Your task to perform on an android device: Go to wifi settings Image 0: 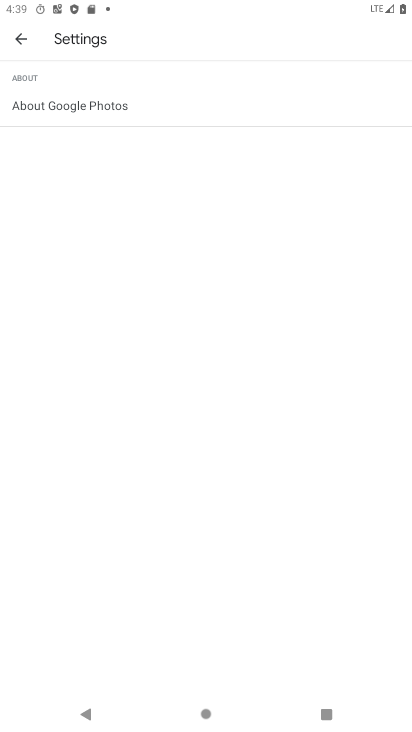
Step 0: press home button
Your task to perform on an android device: Go to wifi settings Image 1: 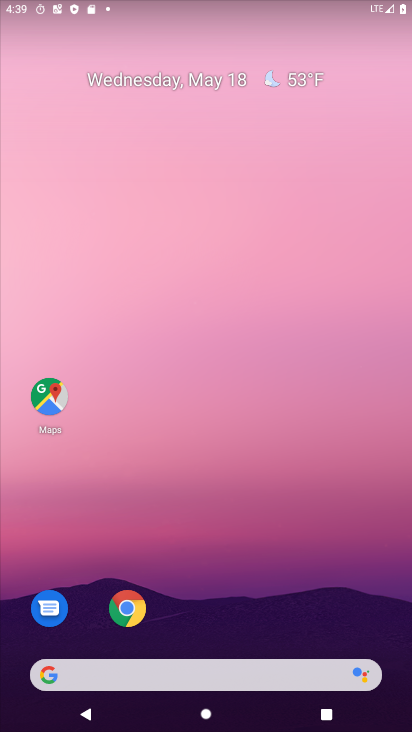
Step 1: drag from (235, 690) to (232, 100)
Your task to perform on an android device: Go to wifi settings Image 2: 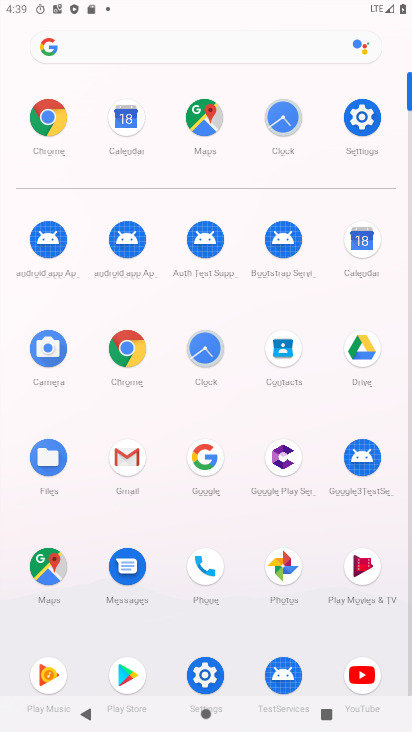
Step 2: click (366, 129)
Your task to perform on an android device: Go to wifi settings Image 3: 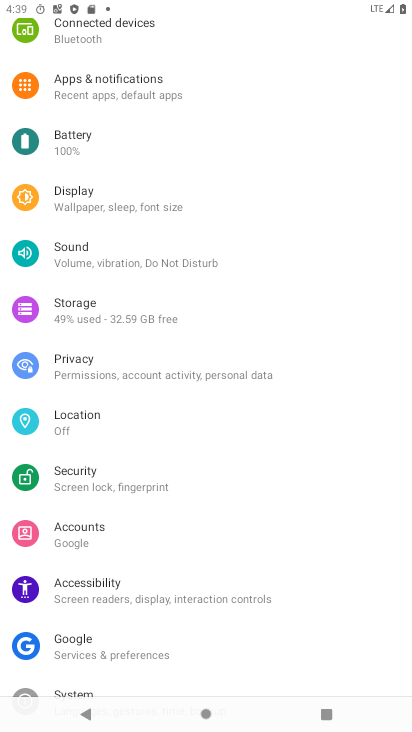
Step 3: drag from (144, 140) to (190, 590)
Your task to perform on an android device: Go to wifi settings Image 4: 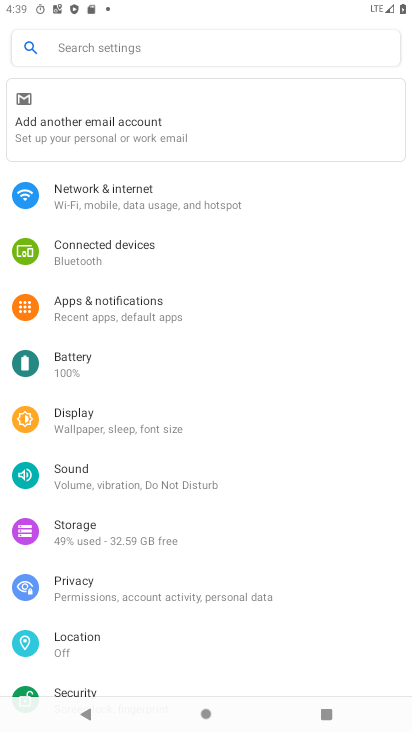
Step 4: click (160, 208)
Your task to perform on an android device: Go to wifi settings Image 5: 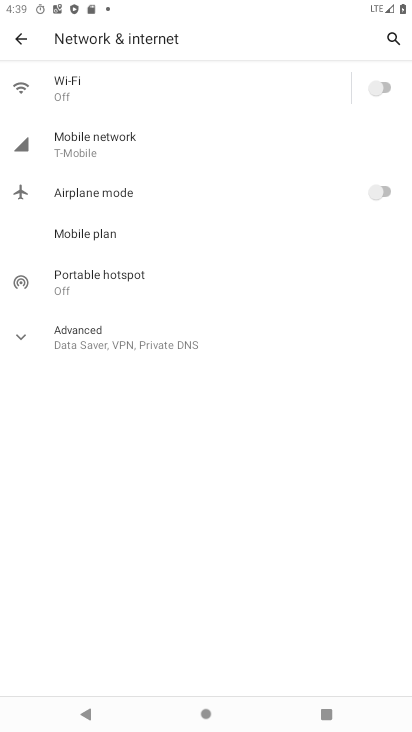
Step 5: click (132, 82)
Your task to perform on an android device: Go to wifi settings Image 6: 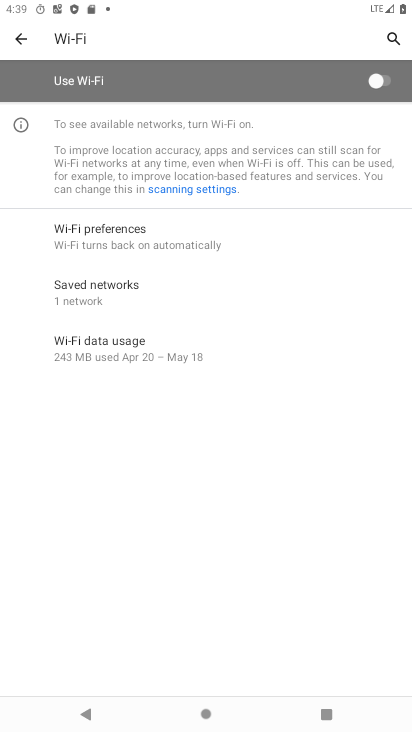
Step 6: task complete